Your task to perform on an android device: Open location settings Image 0: 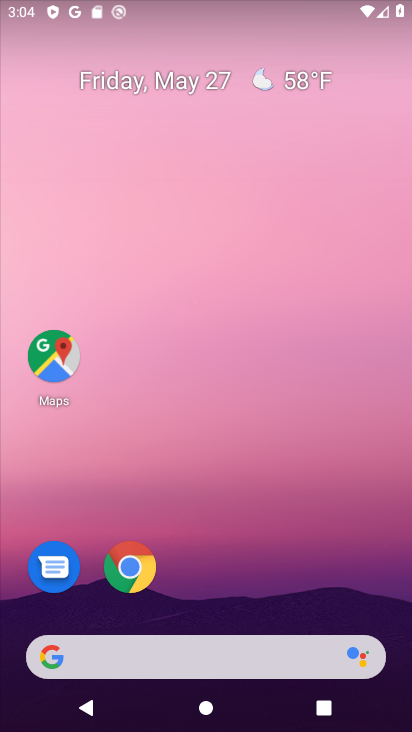
Step 0: press home button
Your task to perform on an android device: Open location settings Image 1: 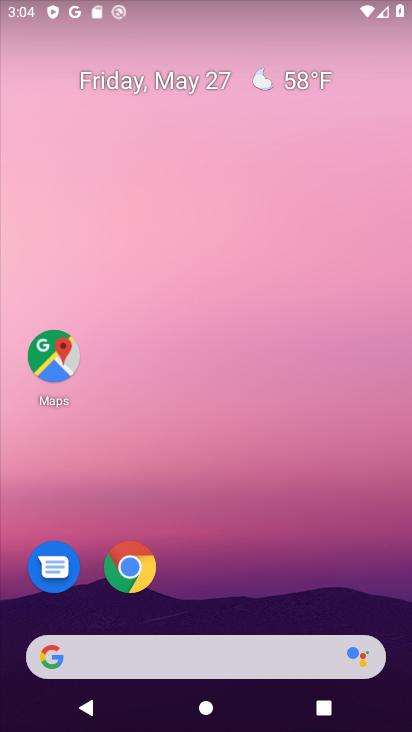
Step 1: drag from (218, 607) to (205, 128)
Your task to perform on an android device: Open location settings Image 2: 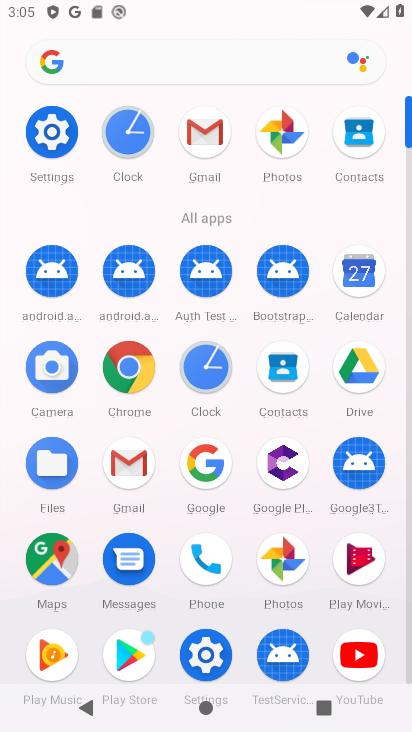
Step 2: click (202, 649)
Your task to perform on an android device: Open location settings Image 3: 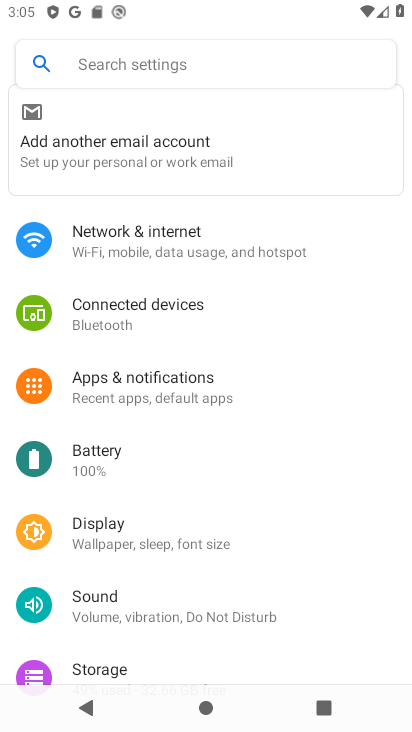
Step 3: drag from (186, 649) to (181, 178)
Your task to perform on an android device: Open location settings Image 4: 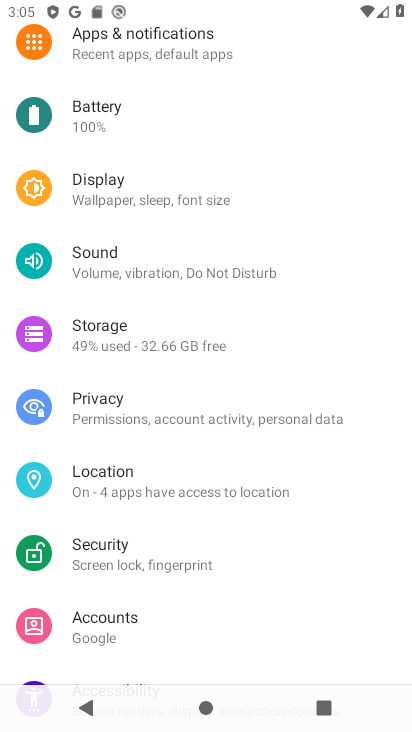
Step 4: click (157, 472)
Your task to perform on an android device: Open location settings Image 5: 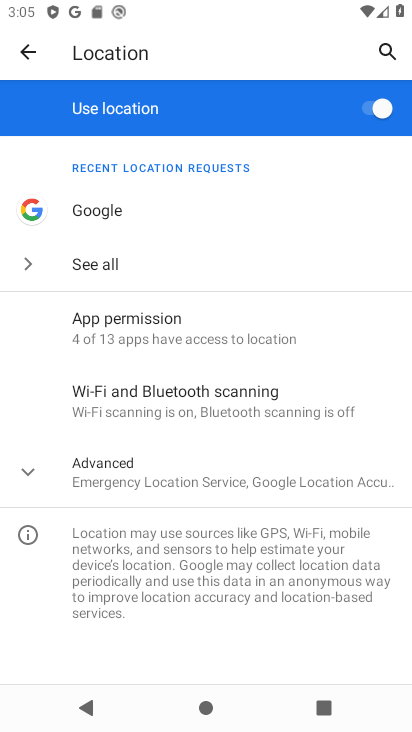
Step 5: click (37, 467)
Your task to perform on an android device: Open location settings Image 6: 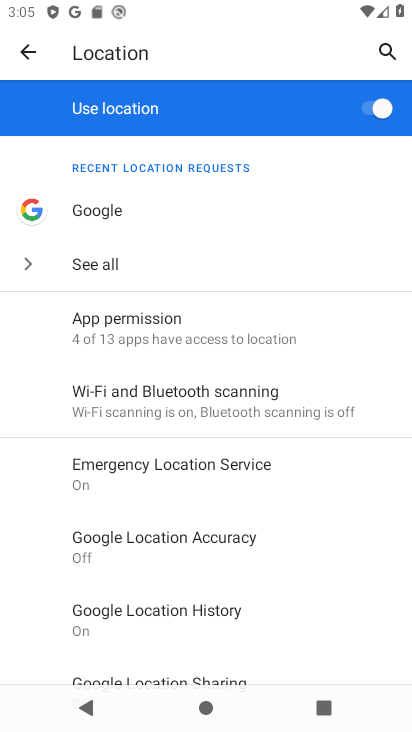
Step 6: task complete